Your task to perform on an android device: open app "Truecaller" Image 0: 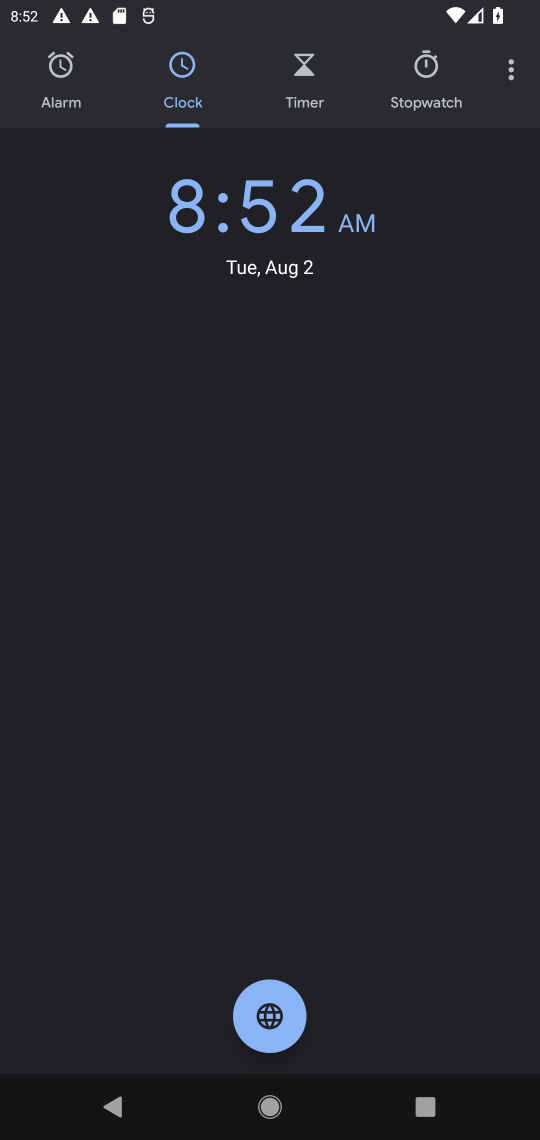
Step 0: press home button
Your task to perform on an android device: open app "Truecaller" Image 1: 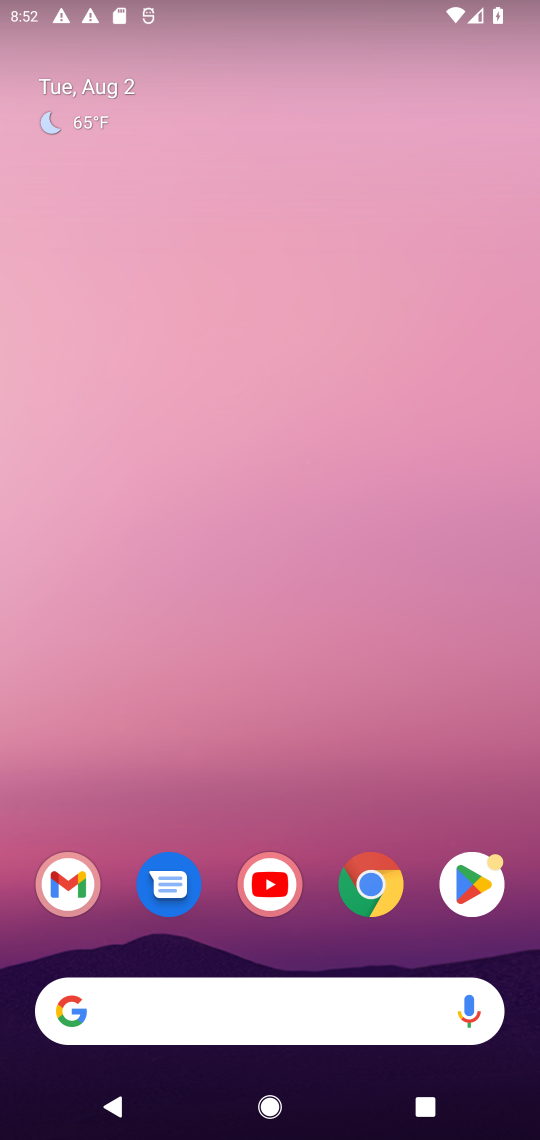
Step 1: click (465, 873)
Your task to perform on an android device: open app "Truecaller" Image 2: 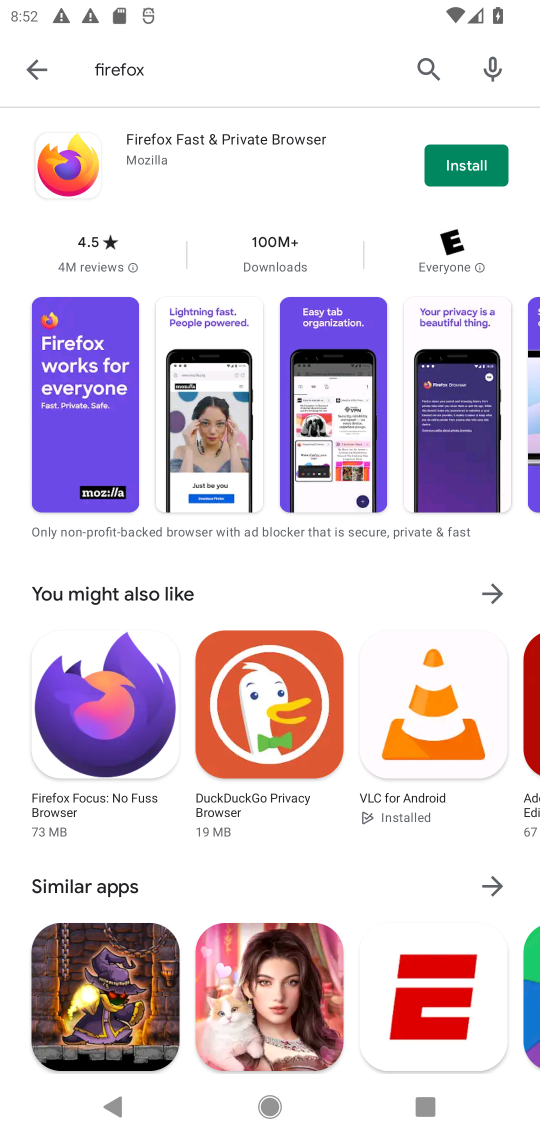
Step 2: click (436, 64)
Your task to perform on an android device: open app "Truecaller" Image 3: 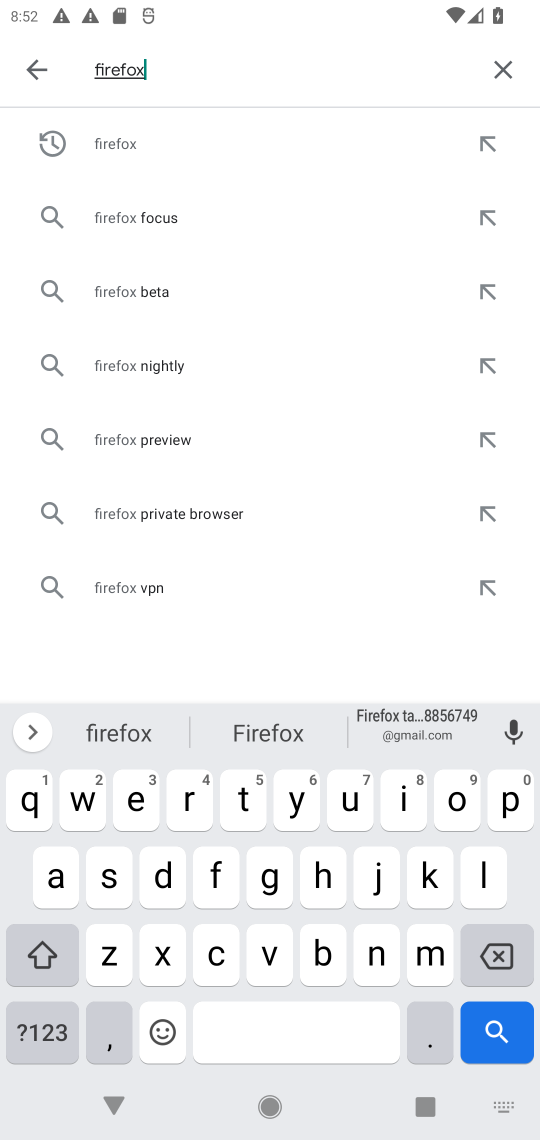
Step 3: click (498, 73)
Your task to perform on an android device: open app "Truecaller" Image 4: 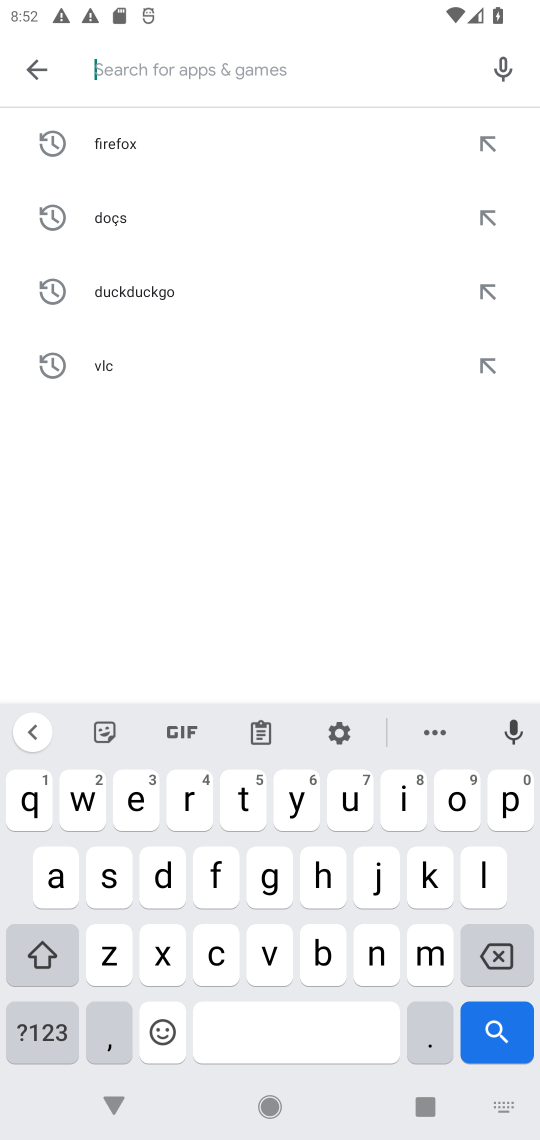
Step 4: click (244, 807)
Your task to perform on an android device: open app "Truecaller" Image 5: 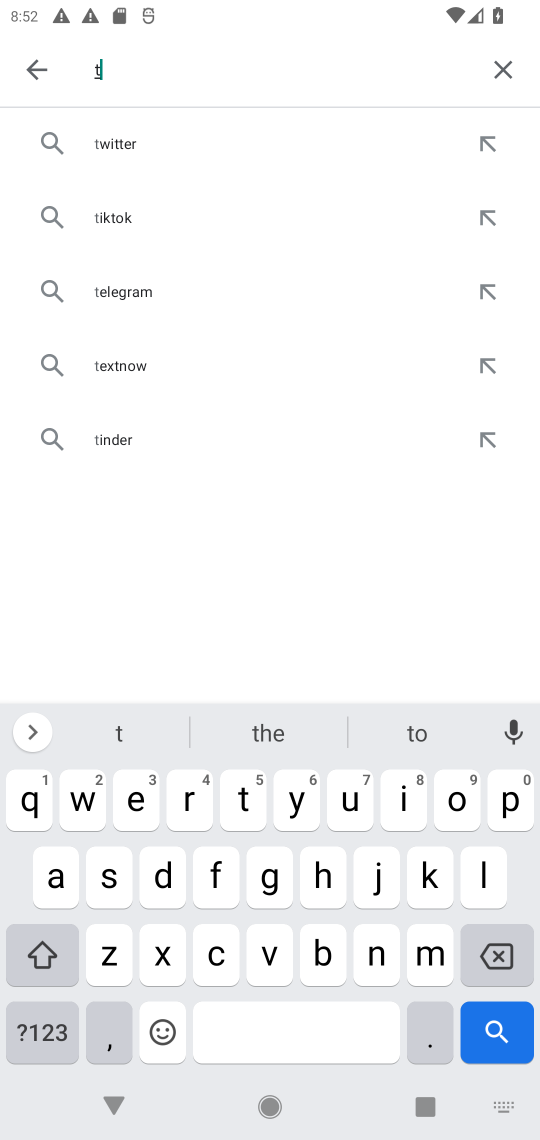
Step 5: click (184, 799)
Your task to perform on an android device: open app "Truecaller" Image 6: 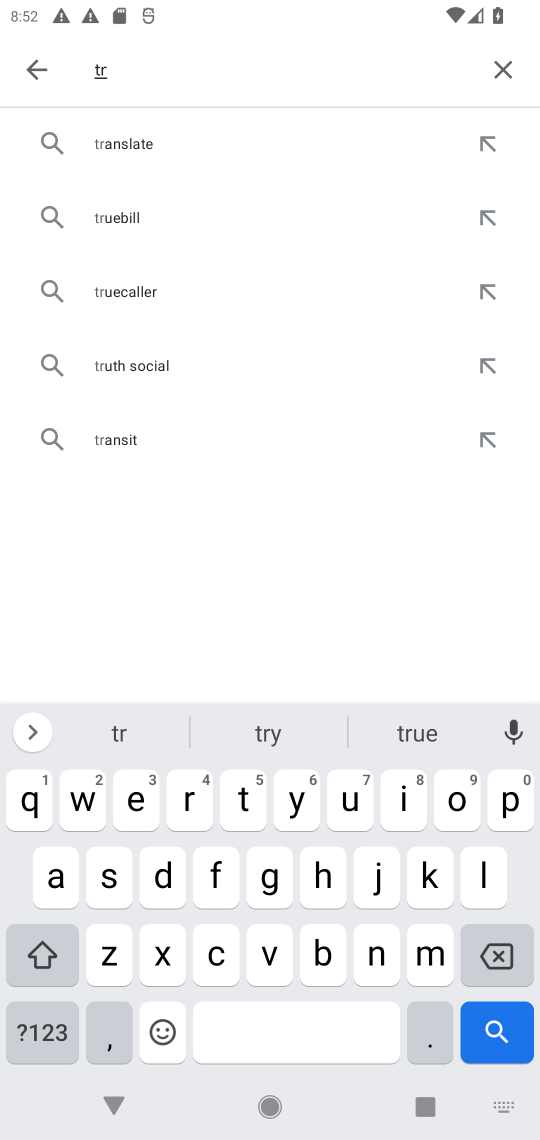
Step 6: click (352, 806)
Your task to perform on an android device: open app "Truecaller" Image 7: 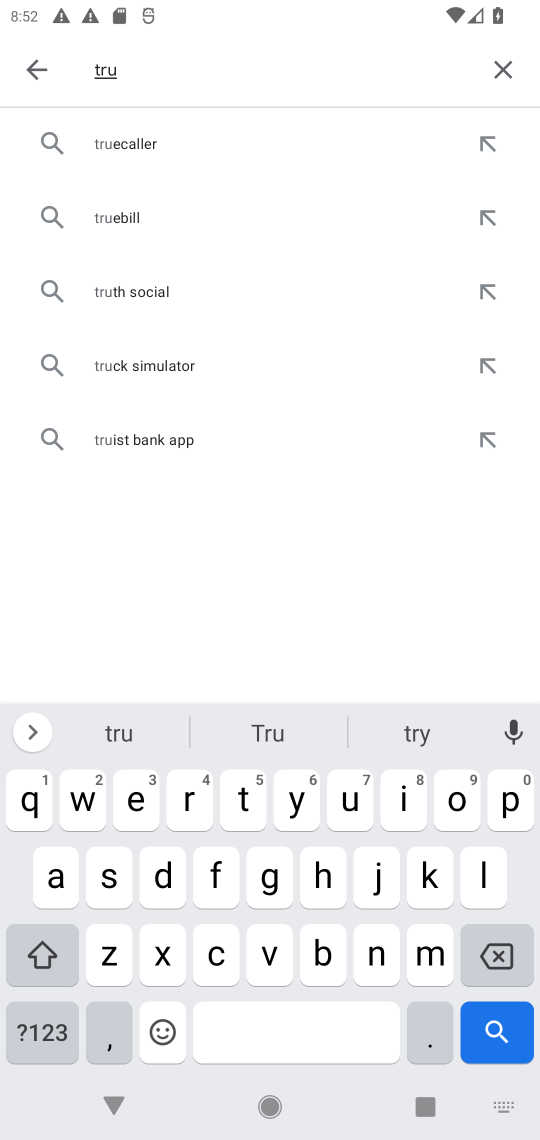
Step 7: click (132, 802)
Your task to perform on an android device: open app "Truecaller" Image 8: 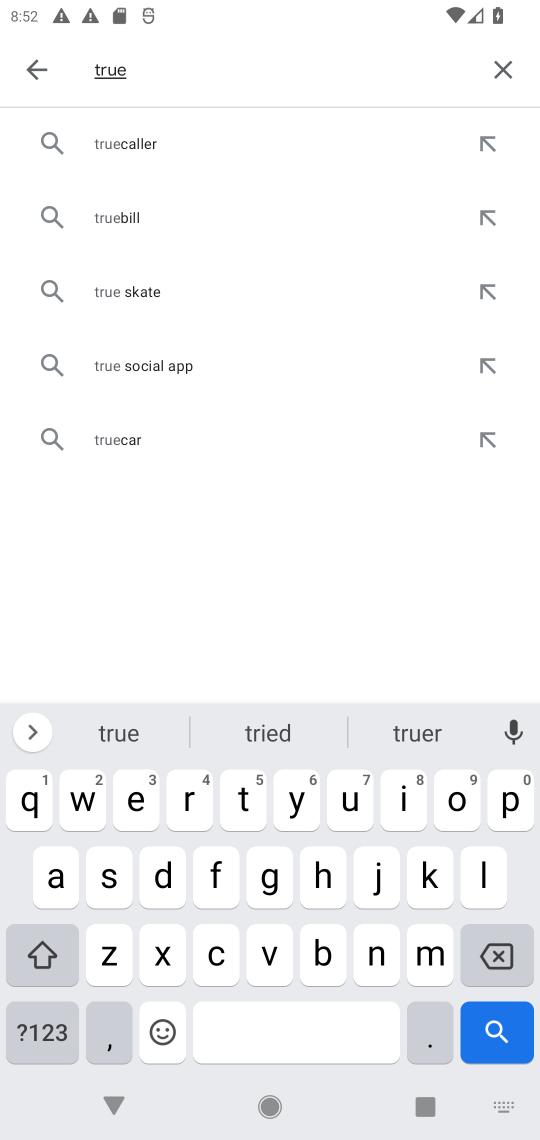
Step 8: click (214, 957)
Your task to perform on an android device: open app "Truecaller" Image 9: 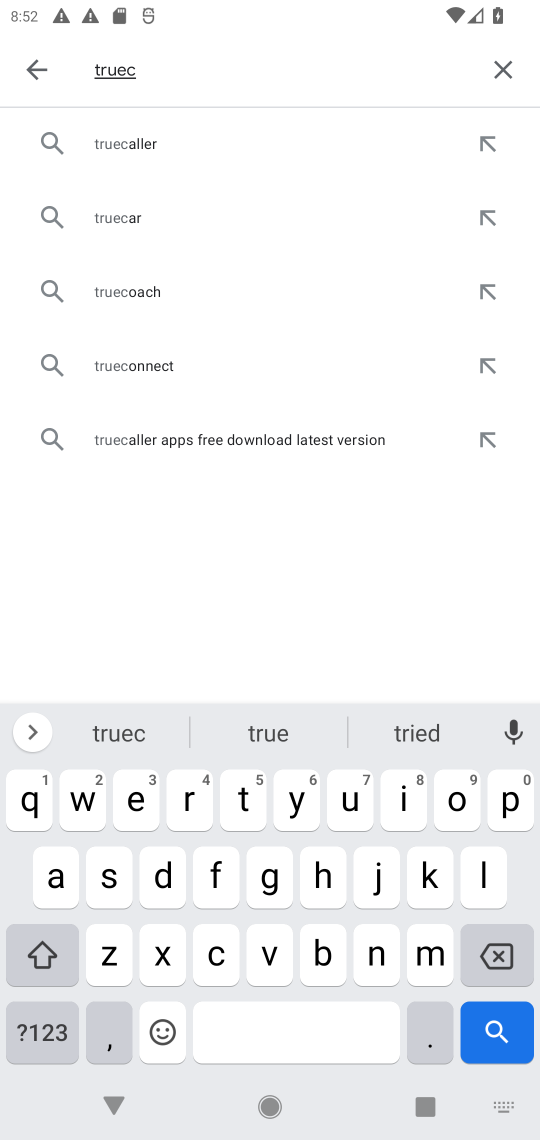
Step 9: click (170, 142)
Your task to perform on an android device: open app "Truecaller" Image 10: 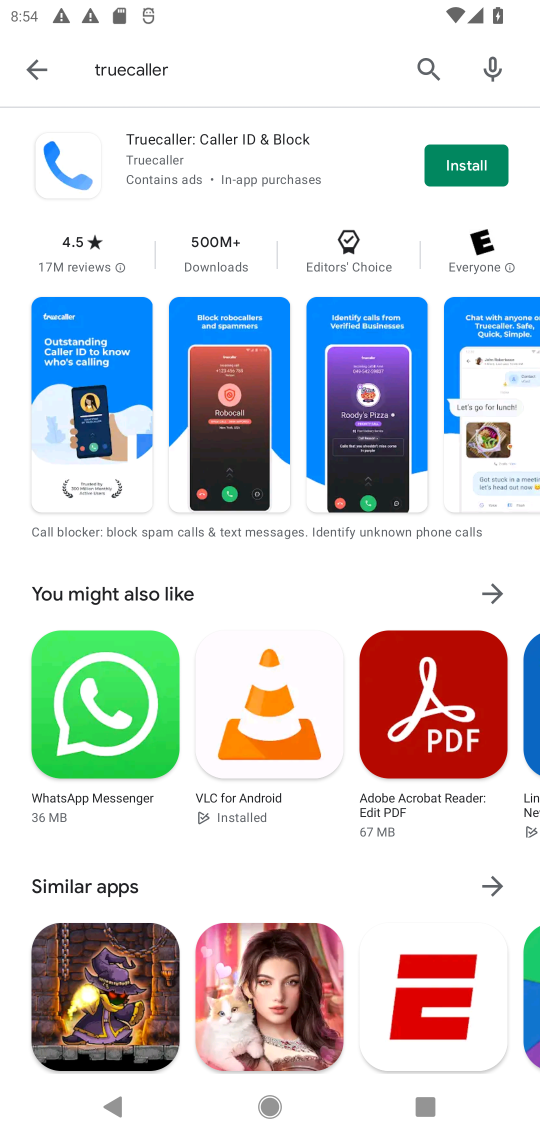
Step 10: task complete